Your task to perform on an android device: Search for seafood restaurants on Google Maps Image 0: 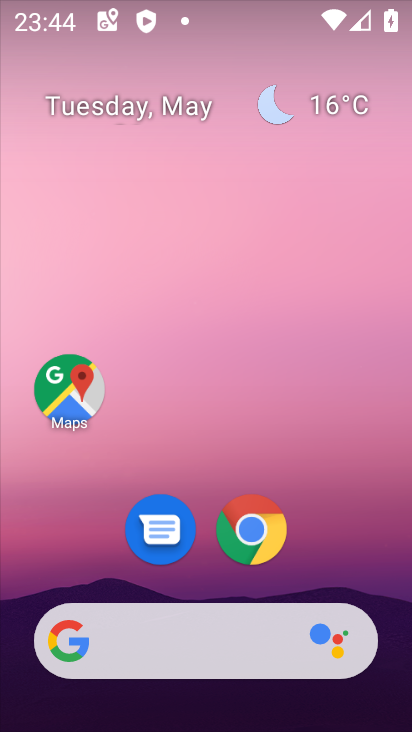
Step 0: click (74, 400)
Your task to perform on an android device: Search for seafood restaurants on Google Maps Image 1: 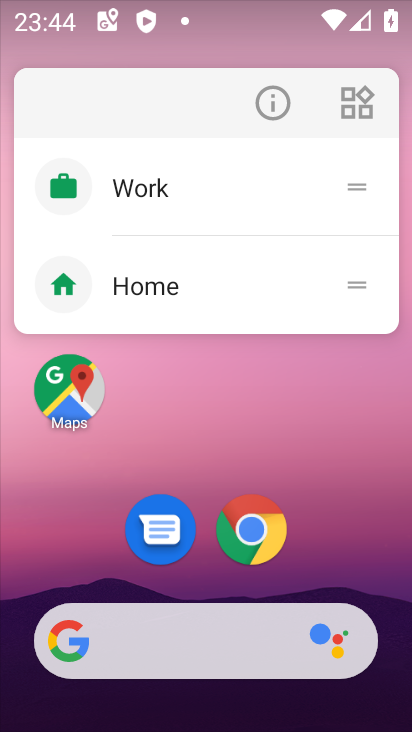
Step 1: click (74, 398)
Your task to perform on an android device: Search for seafood restaurants on Google Maps Image 2: 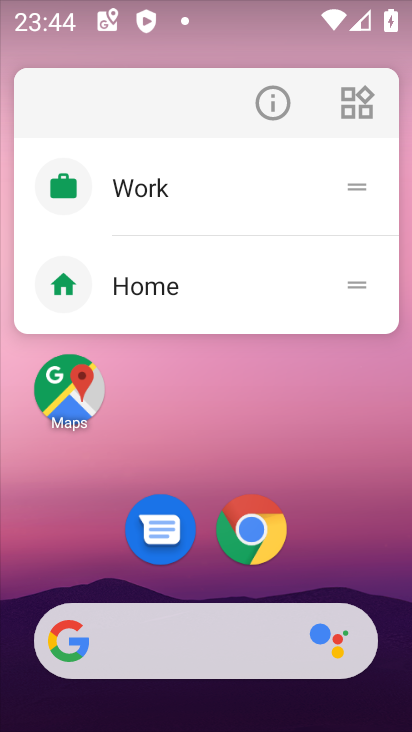
Step 2: click (74, 397)
Your task to perform on an android device: Search for seafood restaurants on Google Maps Image 3: 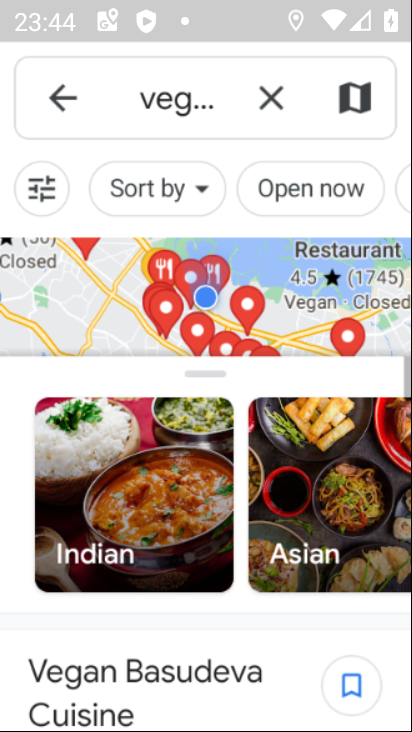
Step 3: click (282, 101)
Your task to perform on an android device: Search for seafood restaurants on Google Maps Image 4: 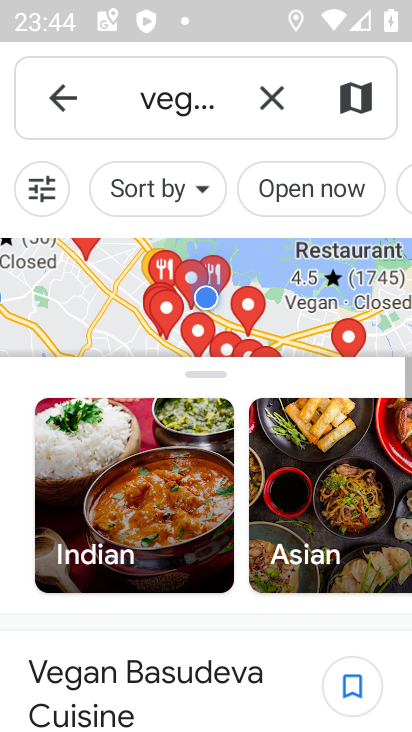
Step 4: click (273, 86)
Your task to perform on an android device: Search for seafood restaurants on Google Maps Image 5: 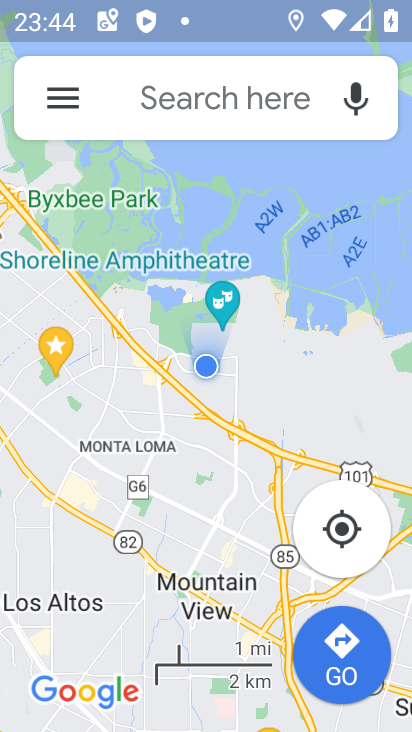
Step 5: click (228, 105)
Your task to perform on an android device: Search for seafood restaurants on Google Maps Image 6: 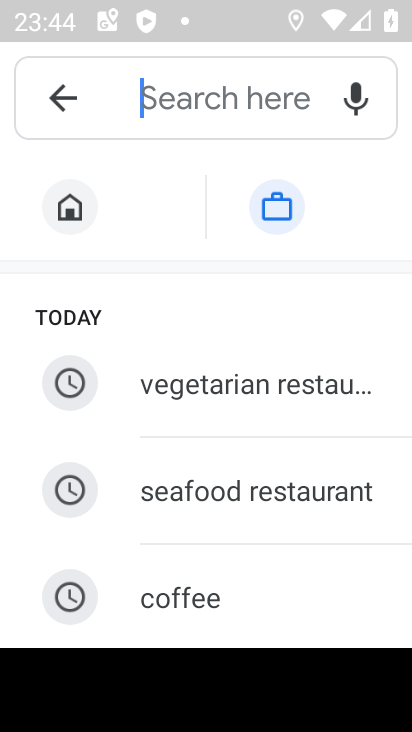
Step 6: type "seafood restaurants"
Your task to perform on an android device: Search for seafood restaurants on Google Maps Image 7: 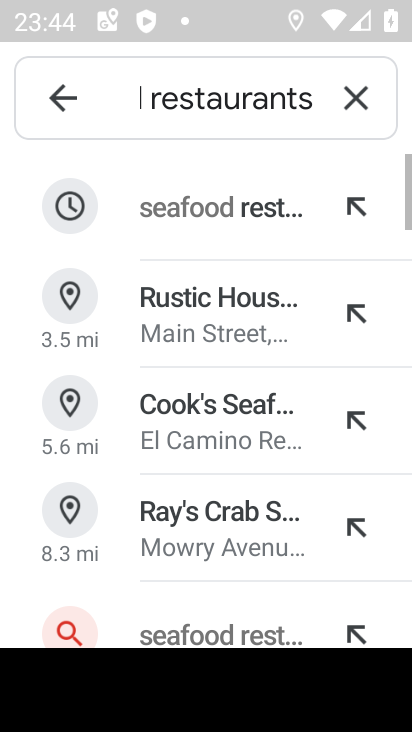
Step 7: click (228, 241)
Your task to perform on an android device: Search for seafood restaurants on Google Maps Image 8: 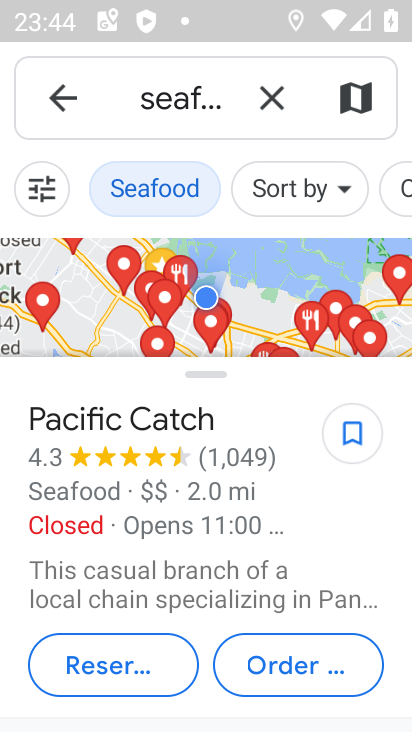
Step 8: task complete